Your task to perform on an android device: change notification settings in the gmail app Image 0: 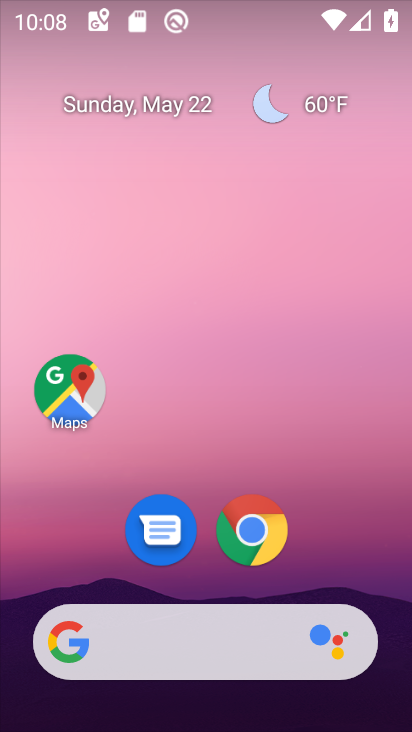
Step 0: drag from (399, 704) to (363, 286)
Your task to perform on an android device: change notification settings in the gmail app Image 1: 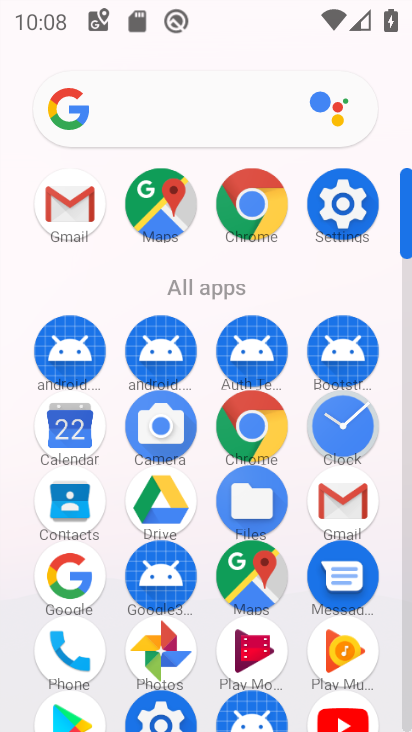
Step 1: click (355, 507)
Your task to perform on an android device: change notification settings in the gmail app Image 2: 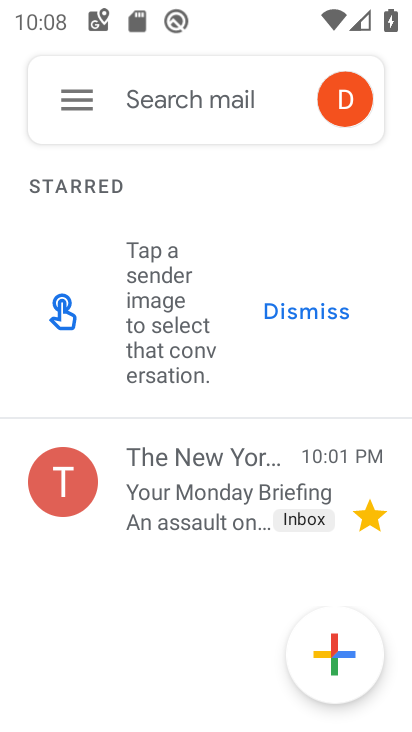
Step 2: click (88, 100)
Your task to perform on an android device: change notification settings in the gmail app Image 3: 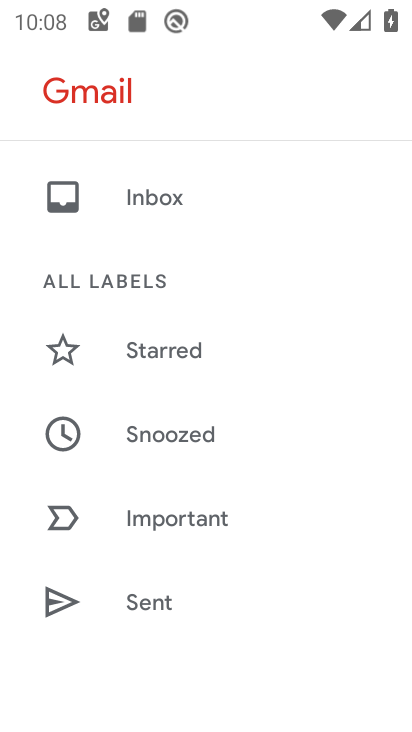
Step 3: drag from (296, 619) to (307, 161)
Your task to perform on an android device: change notification settings in the gmail app Image 4: 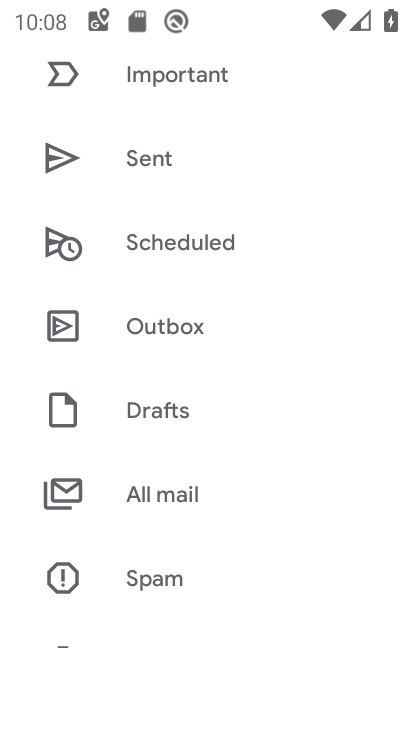
Step 4: drag from (293, 556) to (284, 278)
Your task to perform on an android device: change notification settings in the gmail app Image 5: 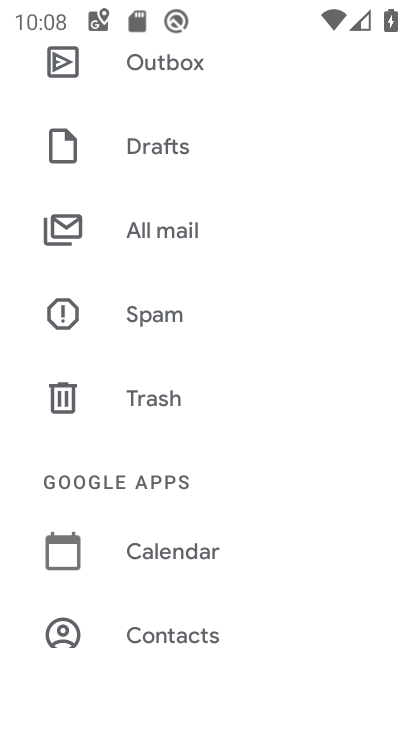
Step 5: drag from (293, 622) to (303, 252)
Your task to perform on an android device: change notification settings in the gmail app Image 6: 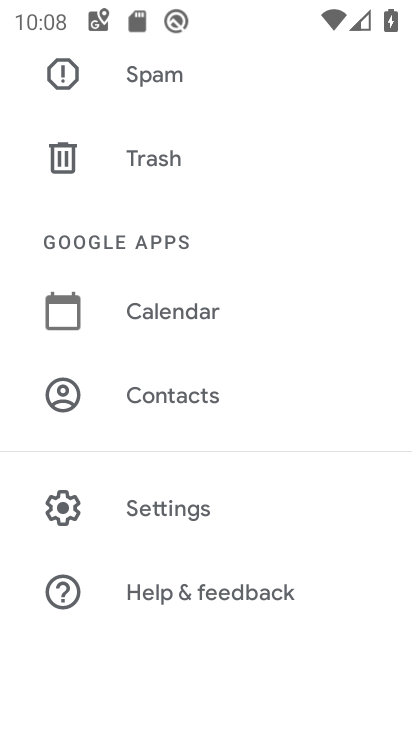
Step 6: click (121, 515)
Your task to perform on an android device: change notification settings in the gmail app Image 7: 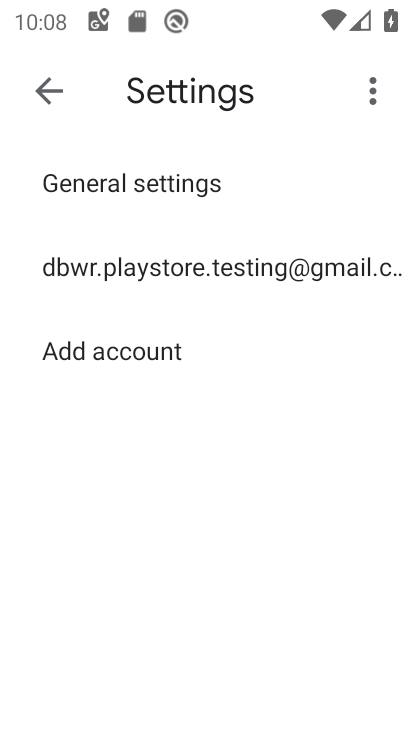
Step 7: click (116, 189)
Your task to perform on an android device: change notification settings in the gmail app Image 8: 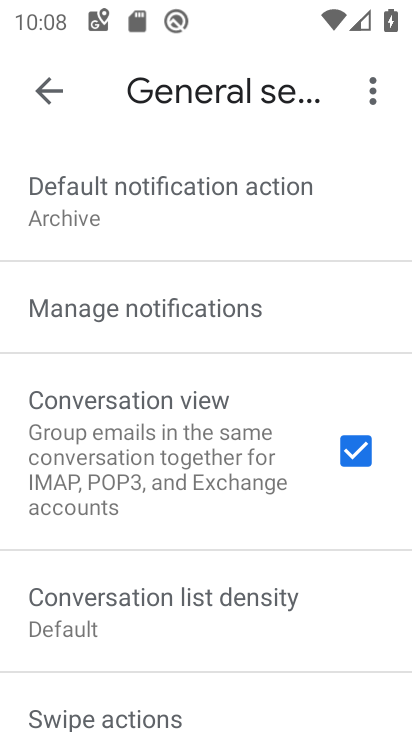
Step 8: drag from (311, 680) to (289, 262)
Your task to perform on an android device: change notification settings in the gmail app Image 9: 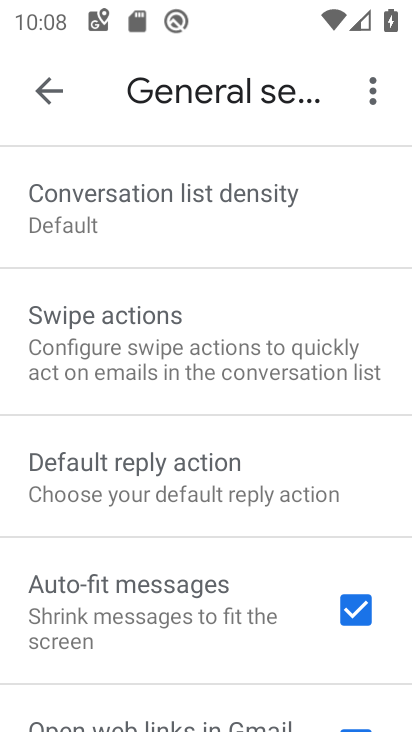
Step 9: drag from (169, 643) to (172, 370)
Your task to perform on an android device: change notification settings in the gmail app Image 10: 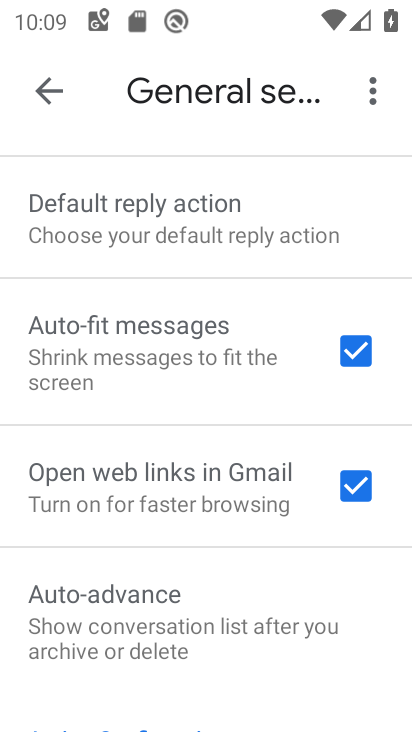
Step 10: drag from (164, 671) to (175, 385)
Your task to perform on an android device: change notification settings in the gmail app Image 11: 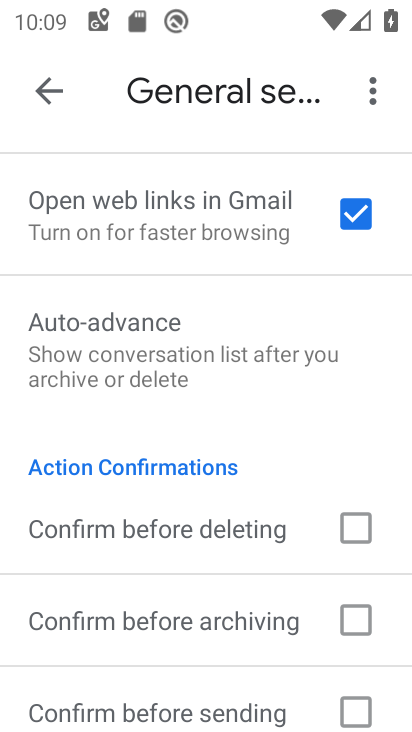
Step 11: drag from (199, 661) to (216, 387)
Your task to perform on an android device: change notification settings in the gmail app Image 12: 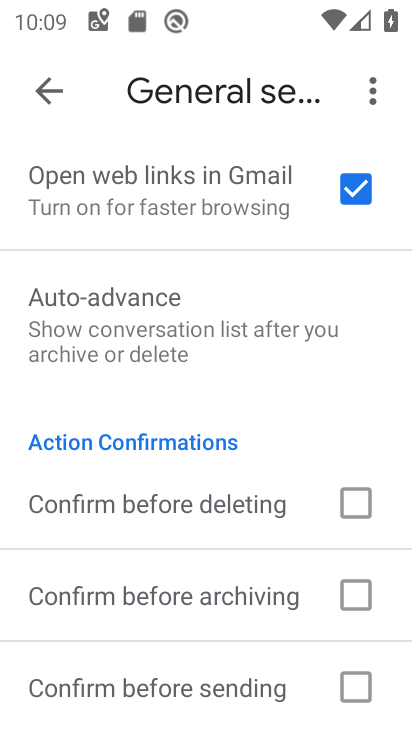
Step 12: drag from (212, 240) to (229, 669)
Your task to perform on an android device: change notification settings in the gmail app Image 13: 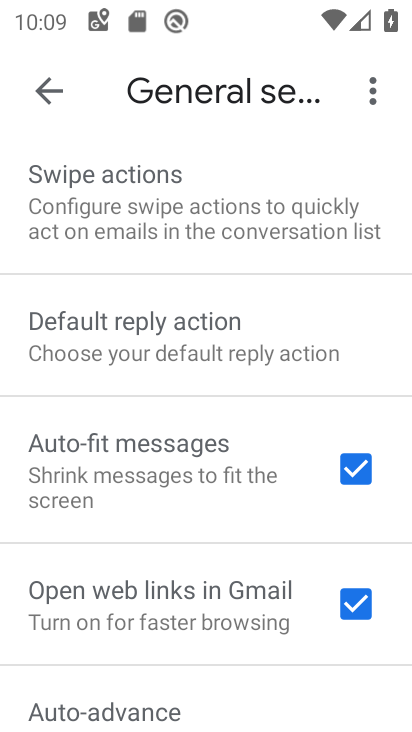
Step 13: drag from (183, 295) to (197, 636)
Your task to perform on an android device: change notification settings in the gmail app Image 14: 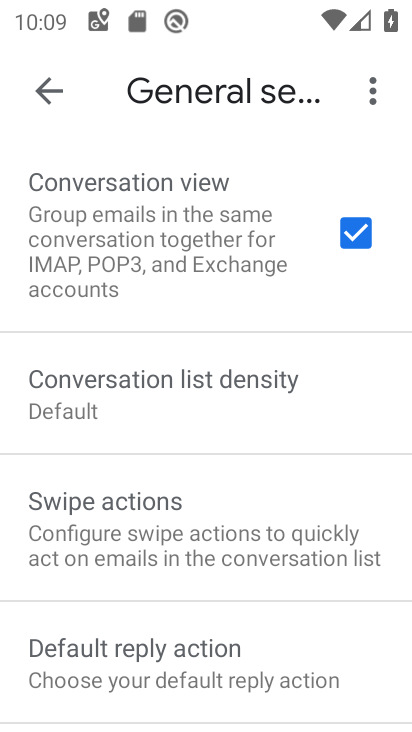
Step 14: drag from (194, 193) to (207, 730)
Your task to perform on an android device: change notification settings in the gmail app Image 15: 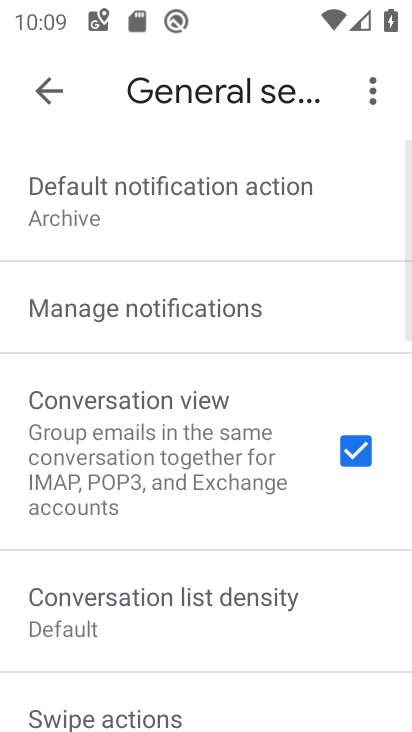
Step 15: click (163, 280)
Your task to perform on an android device: change notification settings in the gmail app Image 16: 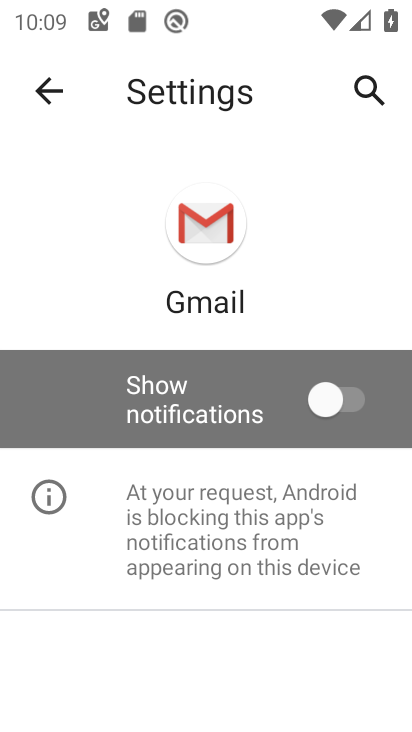
Step 16: click (345, 405)
Your task to perform on an android device: change notification settings in the gmail app Image 17: 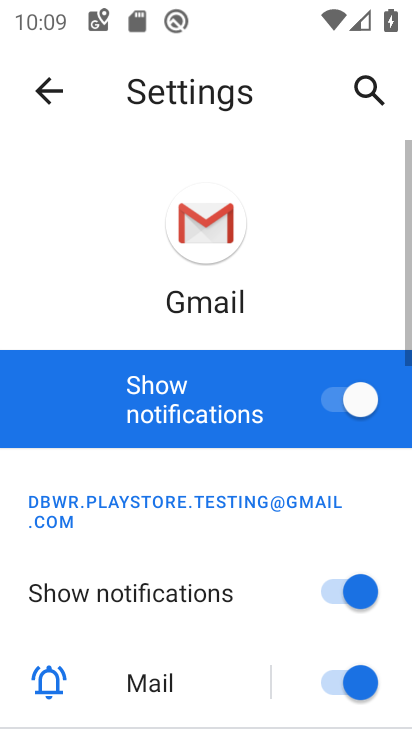
Step 17: task complete